Your task to perform on an android device: turn on improve location accuracy Image 0: 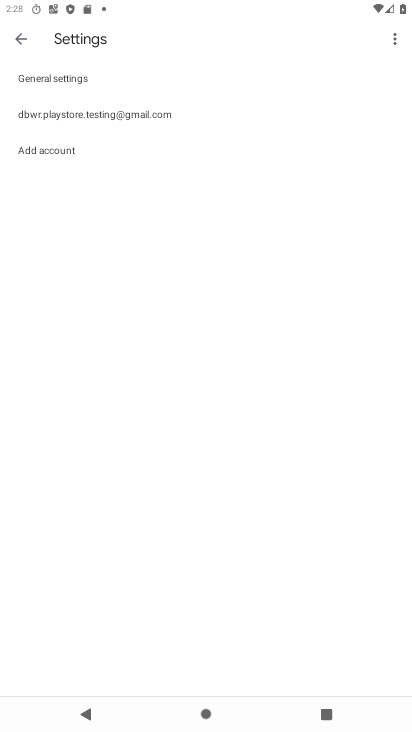
Step 0: press home button
Your task to perform on an android device: turn on improve location accuracy Image 1: 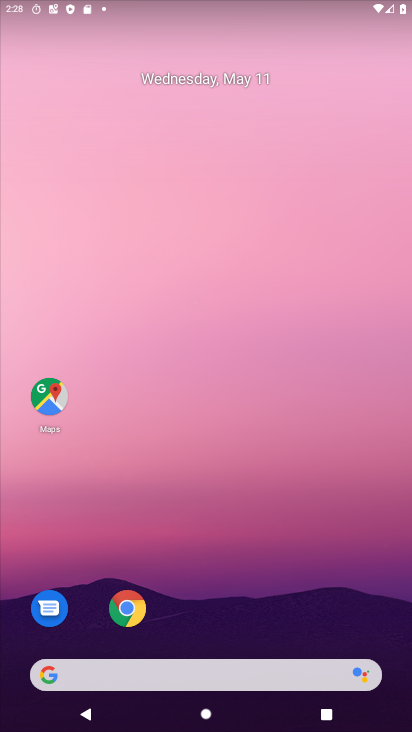
Step 1: drag from (236, 608) to (289, 124)
Your task to perform on an android device: turn on improve location accuracy Image 2: 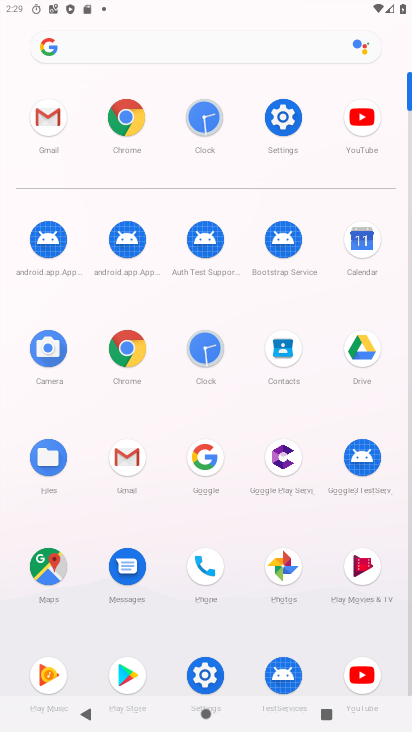
Step 2: click (286, 119)
Your task to perform on an android device: turn on improve location accuracy Image 3: 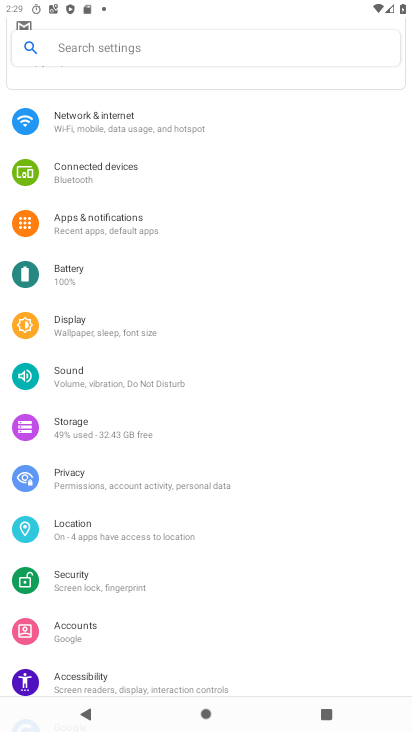
Step 3: click (119, 534)
Your task to perform on an android device: turn on improve location accuracy Image 4: 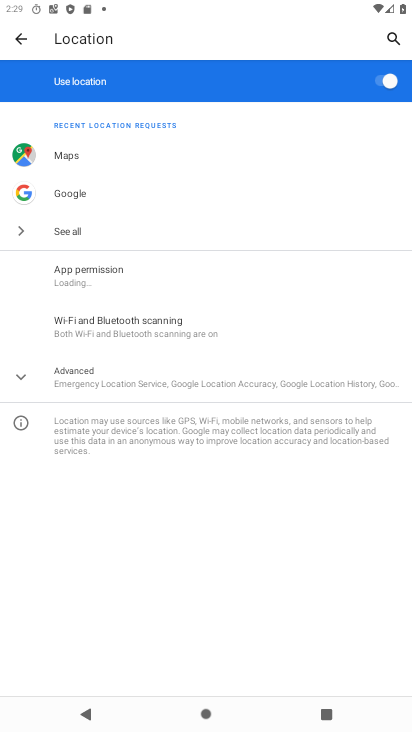
Step 4: click (172, 388)
Your task to perform on an android device: turn on improve location accuracy Image 5: 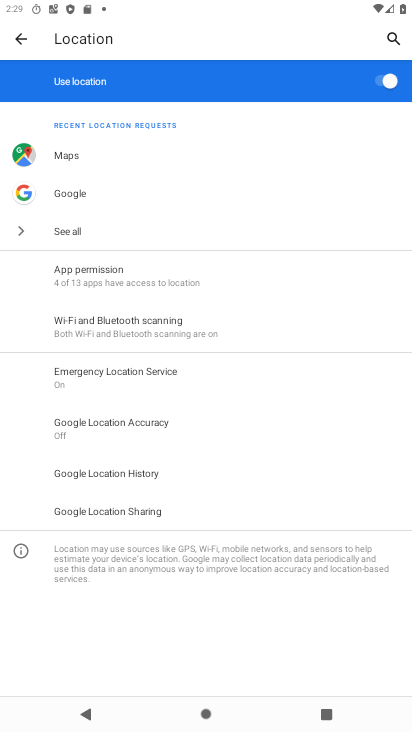
Step 5: click (153, 428)
Your task to perform on an android device: turn on improve location accuracy Image 6: 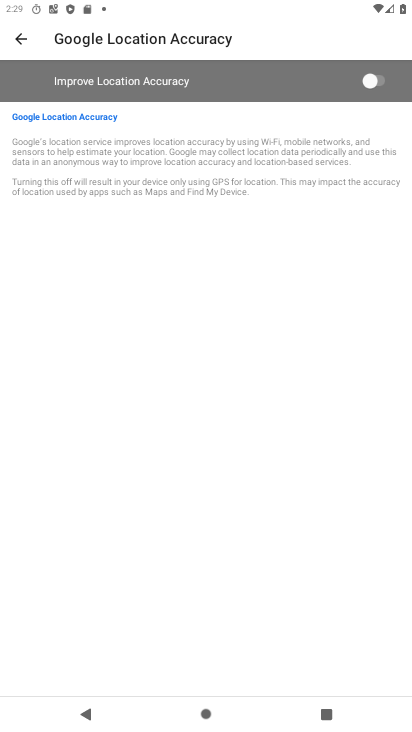
Step 6: click (379, 82)
Your task to perform on an android device: turn on improve location accuracy Image 7: 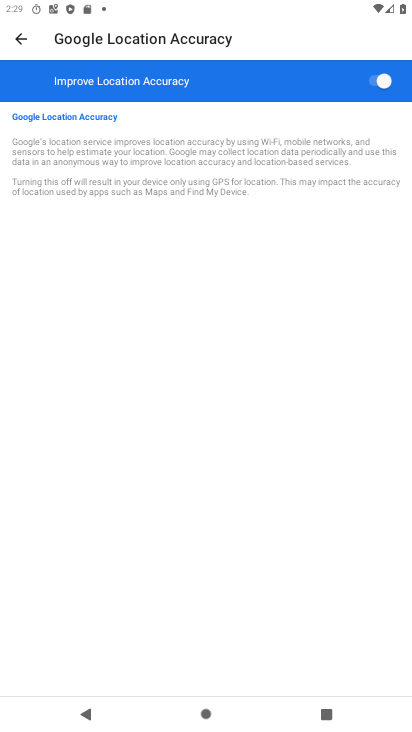
Step 7: task complete